Your task to perform on an android device: turn off priority inbox in the gmail app Image 0: 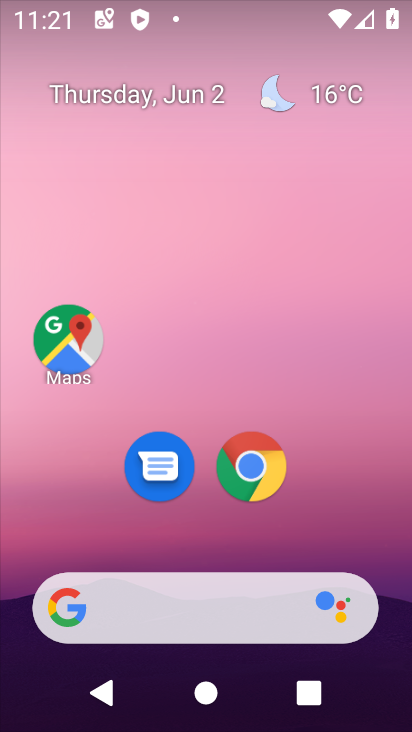
Step 0: drag from (219, 532) to (211, 179)
Your task to perform on an android device: turn off priority inbox in the gmail app Image 1: 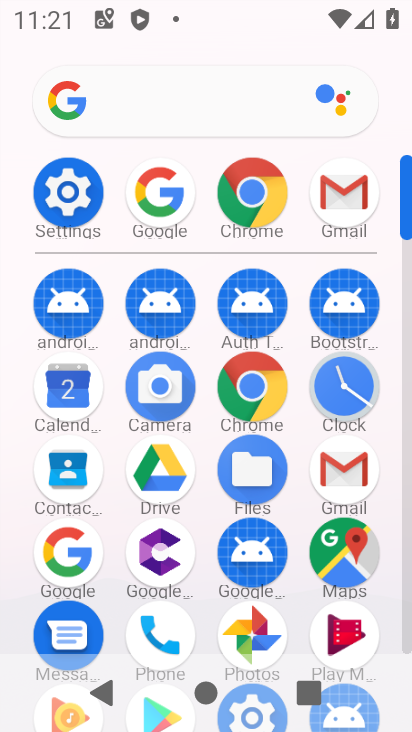
Step 1: click (356, 187)
Your task to perform on an android device: turn off priority inbox in the gmail app Image 2: 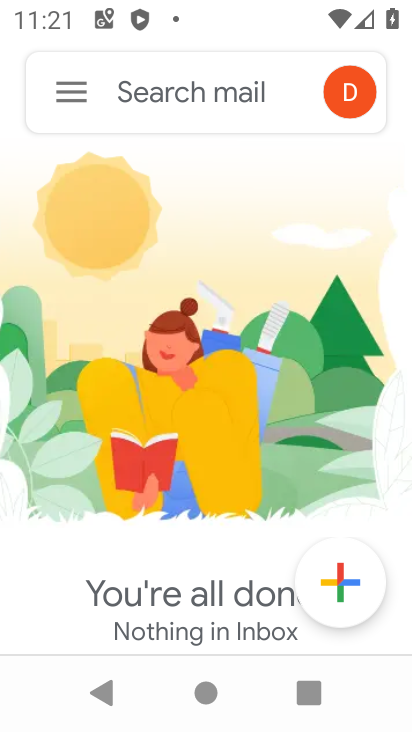
Step 2: click (74, 101)
Your task to perform on an android device: turn off priority inbox in the gmail app Image 3: 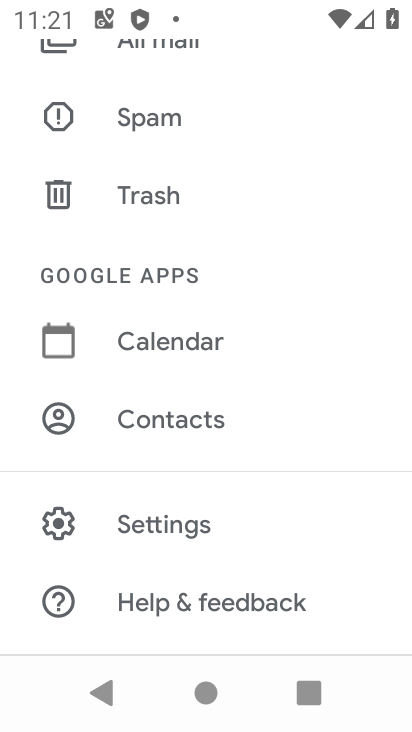
Step 3: click (196, 526)
Your task to perform on an android device: turn off priority inbox in the gmail app Image 4: 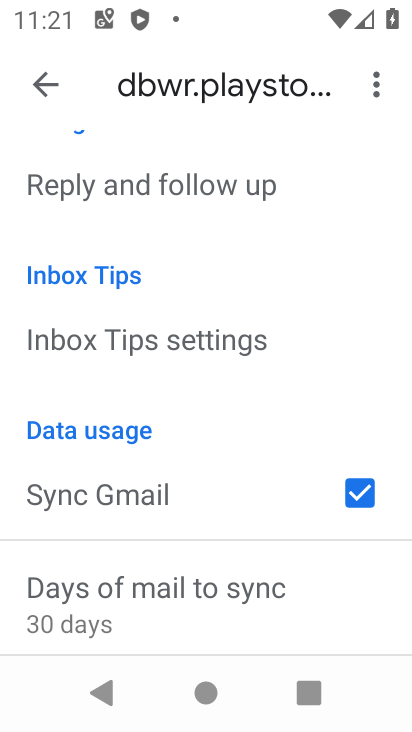
Step 4: drag from (182, 553) to (202, 238)
Your task to perform on an android device: turn off priority inbox in the gmail app Image 5: 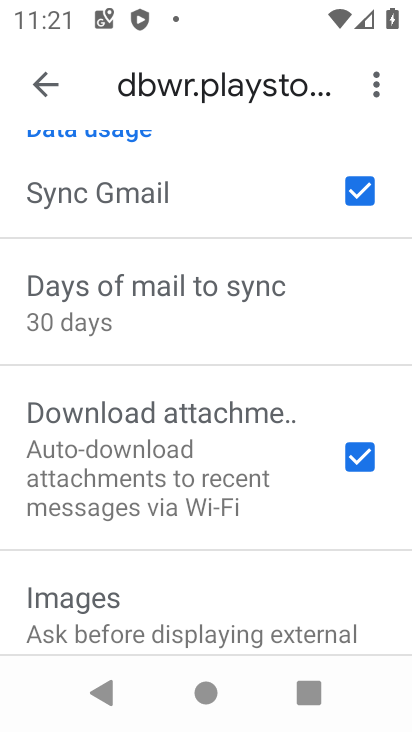
Step 5: drag from (186, 548) to (194, 265)
Your task to perform on an android device: turn off priority inbox in the gmail app Image 6: 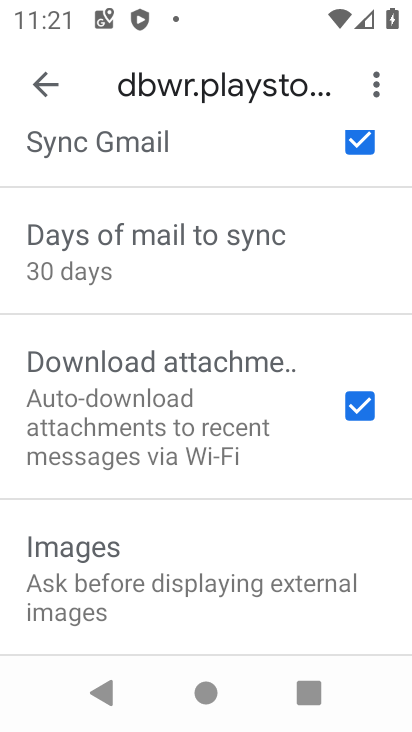
Step 6: drag from (168, 560) to (190, 194)
Your task to perform on an android device: turn off priority inbox in the gmail app Image 7: 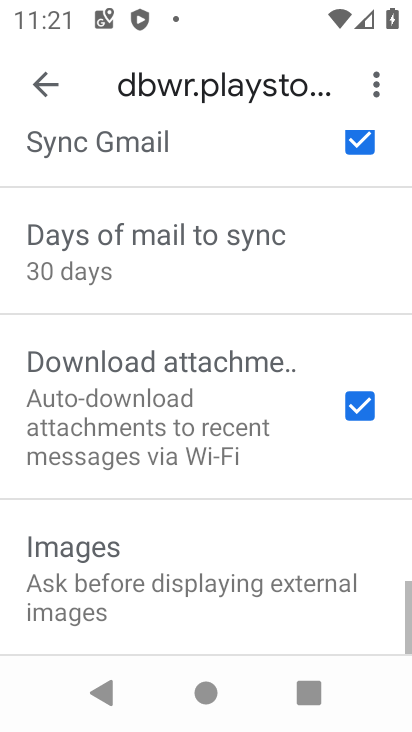
Step 7: drag from (190, 194) to (230, 504)
Your task to perform on an android device: turn off priority inbox in the gmail app Image 8: 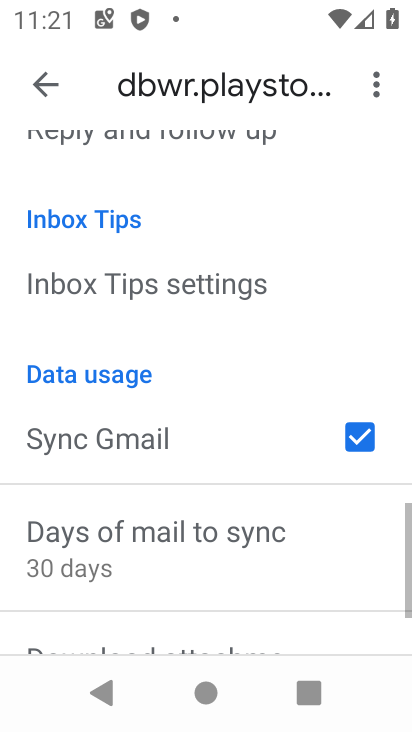
Step 8: drag from (176, 290) to (212, 581)
Your task to perform on an android device: turn off priority inbox in the gmail app Image 9: 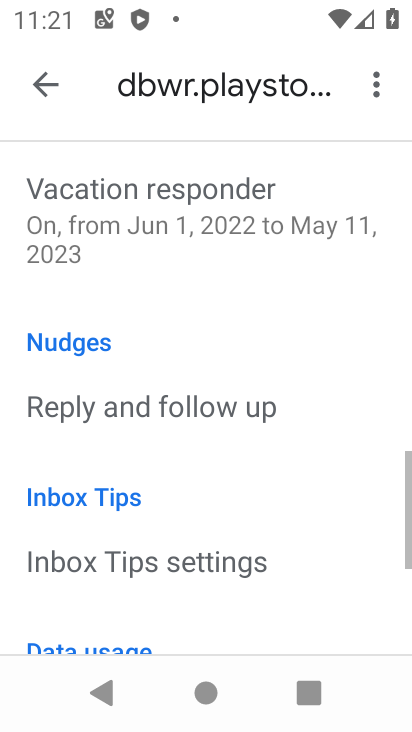
Step 9: drag from (188, 277) to (213, 477)
Your task to perform on an android device: turn off priority inbox in the gmail app Image 10: 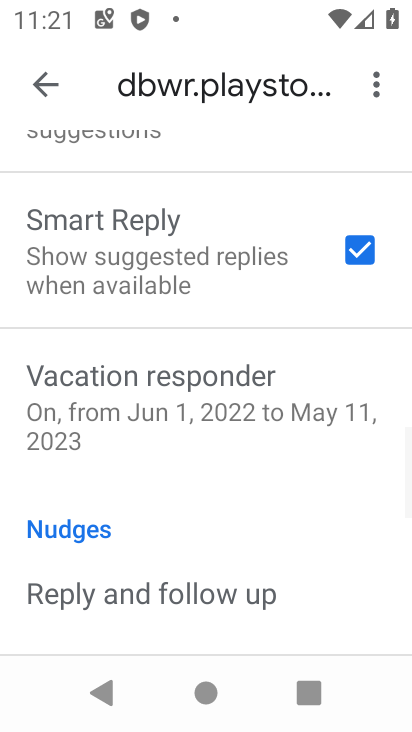
Step 10: drag from (212, 286) to (222, 523)
Your task to perform on an android device: turn off priority inbox in the gmail app Image 11: 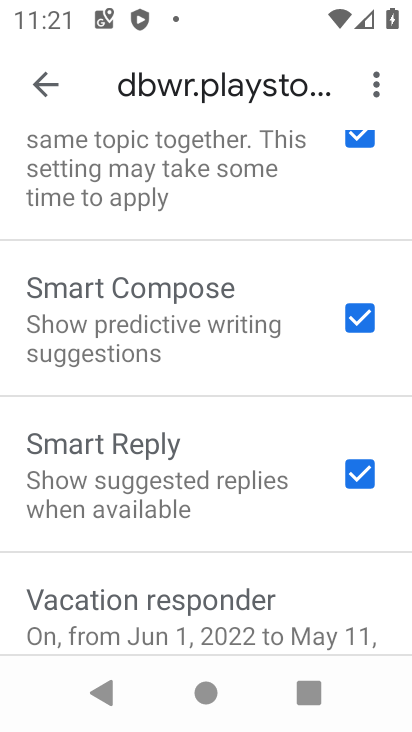
Step 11: drag from (209, 311) to (226, 499)
Your task to perform on an android device: turn off priority inbox in the gmail app Image 12: 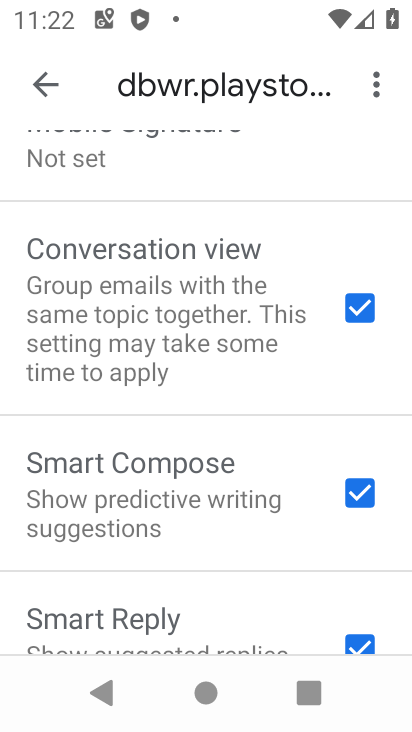
Step 12: drag from (224, 257) to (243, 444)
Your task to perform on an android device: turn off priority inbox in the gmail app Image 13: 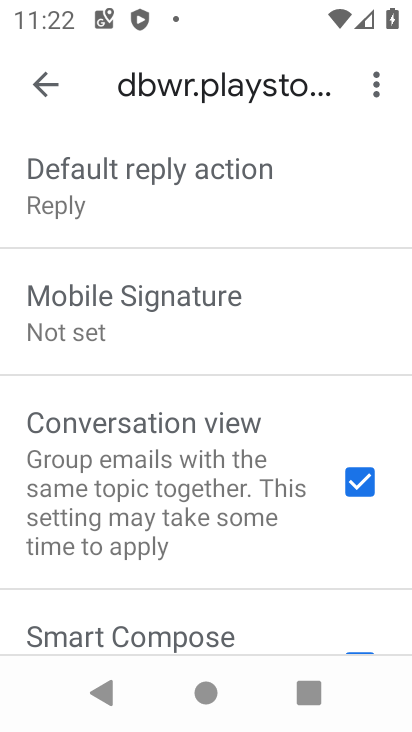
Step 13: drag from (235, 275) to (235, 412)
Your task to perform on an android device: turn off priority inbox in the gmail app Image 14: 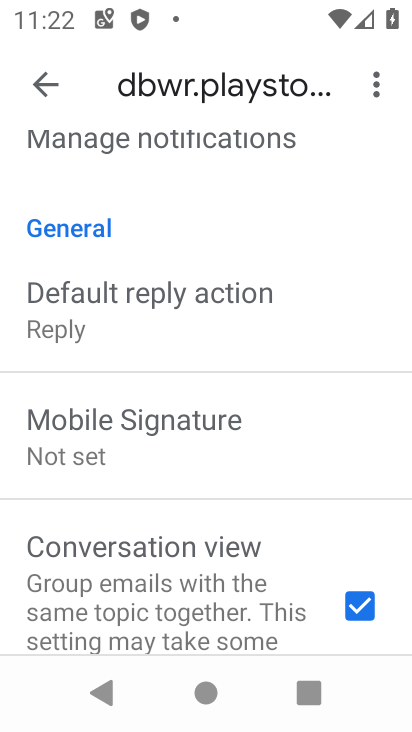
Step 14: drag from (234, 206) to (240, 417)
Your task to perform on an android device: turn off priority inbox in the gmail app Image 15: 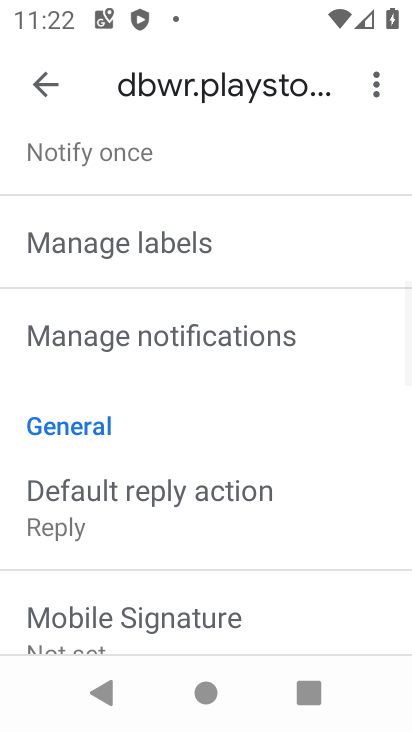
Step 15: drag from (235, 212) to (235, 434)
Your task to perform on an android device: turn off priority inbox in the gmail app Image 16: 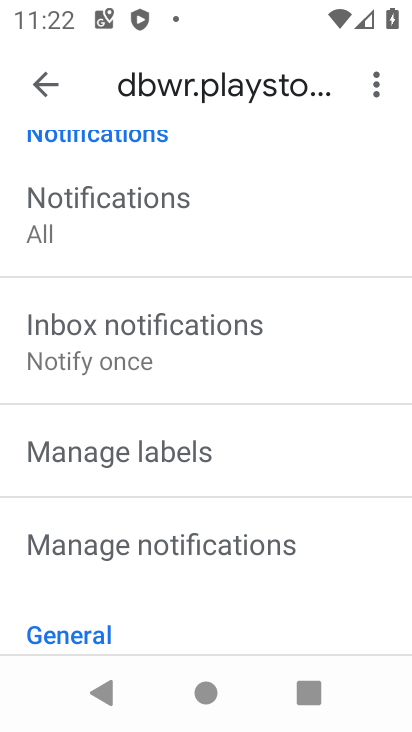
Step 16: drag from (233, 242) to (233, 472)
Your task to perform on an android device: turn off priority inbox in the gmail app Image 17: 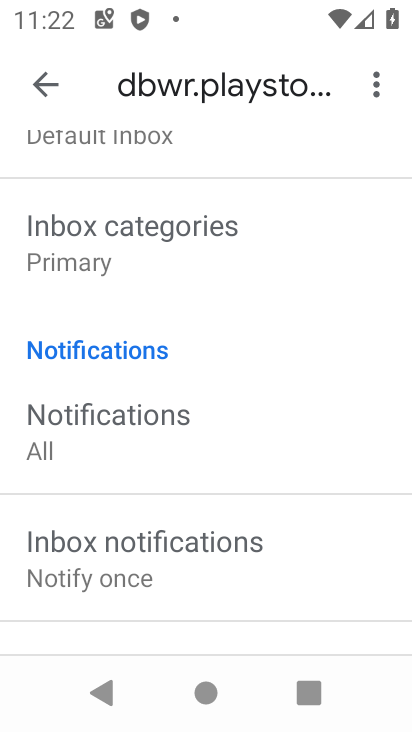
Step 17: drag from (227, 256) to (233, 504)
Your task to perform on an android device: turn off priority inbox in the gmail app Image 18: 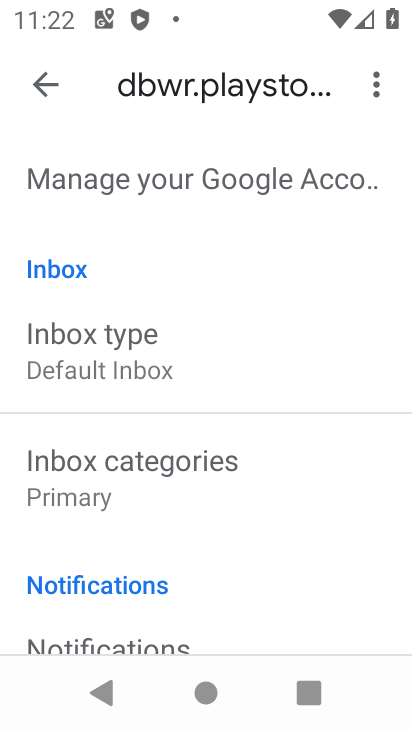
Step 18: click (167, 368)
Your task to perform on an android device: turn off priority inbox in the gmail app Image 19: 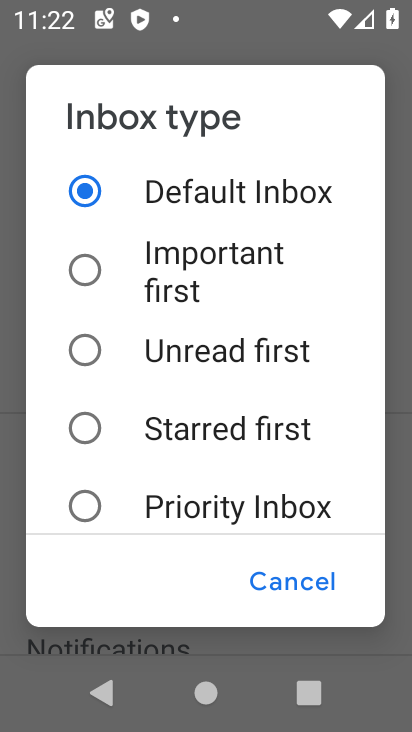
Step 19: click (154, 492)
Your task to perform on an android device: turn off priority inbox in the gmail app Image 20: 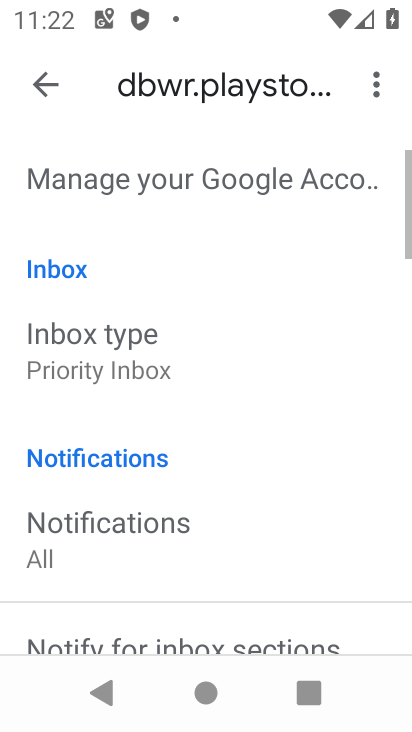
Step 20: click (137, 381)
Your task to perform on an android device: turn off priority inbox in the gmail app Image 21: 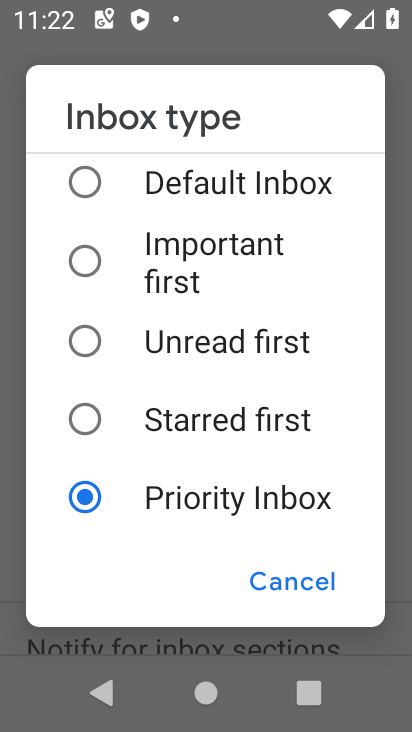
Step 21: click (161, 199)
Your task to perform on an android device: turn off priority inbox in the gmail app Image 22: 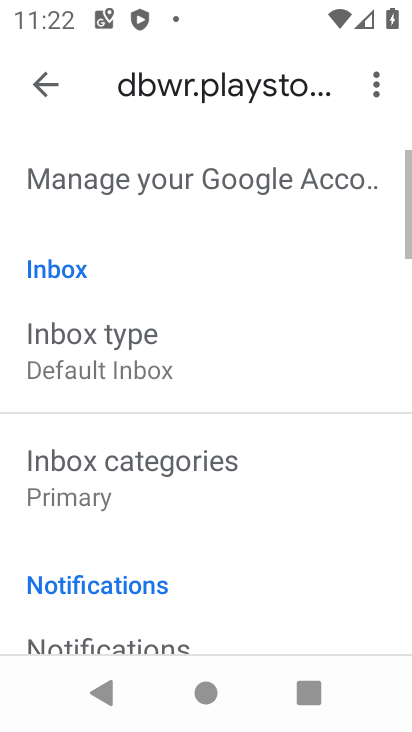
Step 22: task complete